Your task to perform on an android device: Set the phone to "Do not disturb". Image 0: 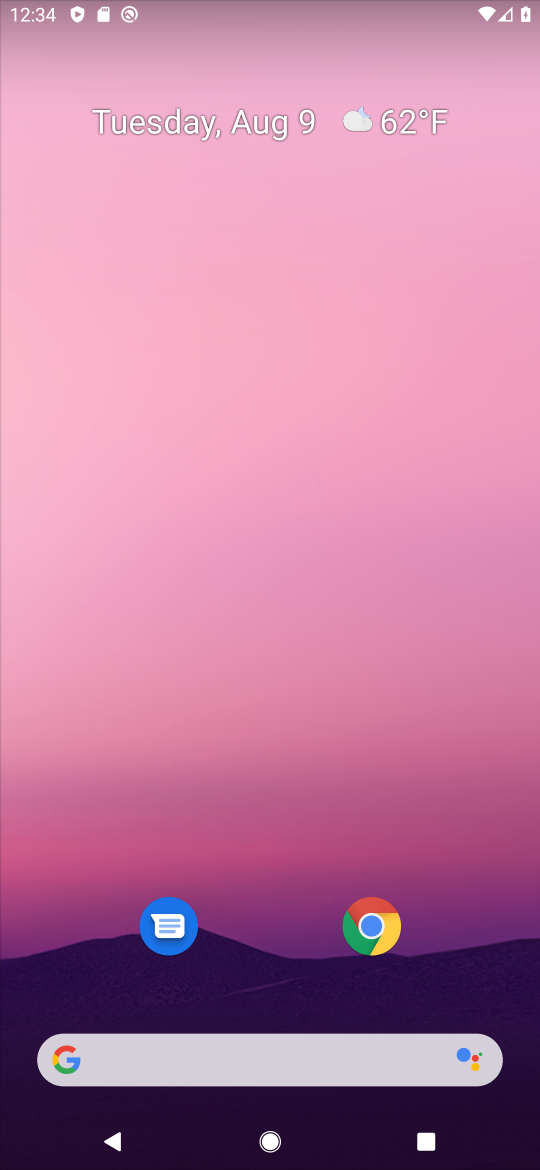
Step 0: drag from (268, 7) to (287, 783)
Your task to perform on an android device: Set the phone to "Do not disturb". Image 1: 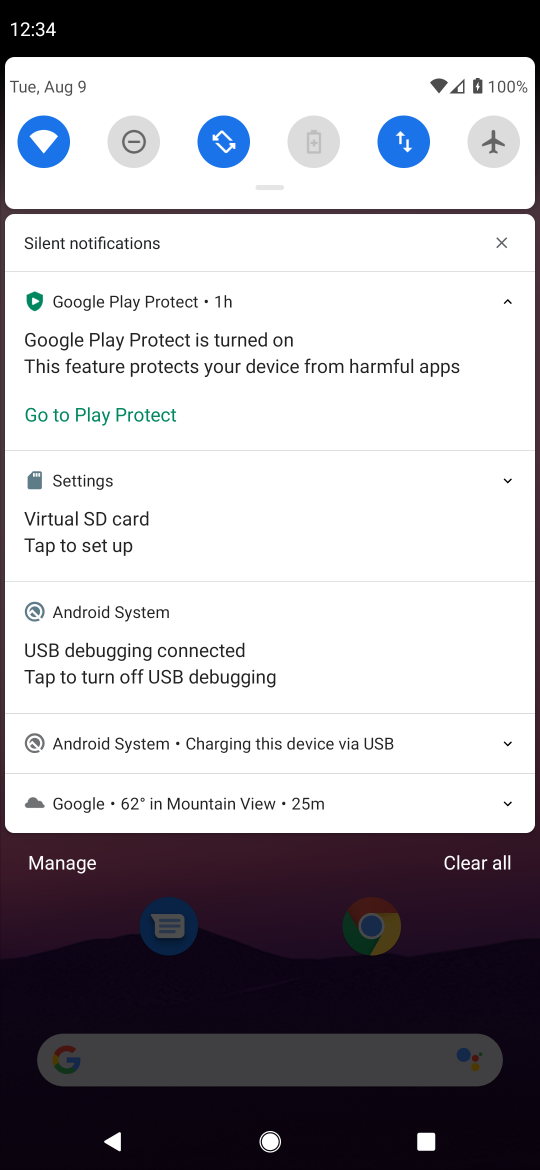
Step 1: click (140, 140)
Your task to perform on an android device: Set the phone to "Do not disturb". Image 2: 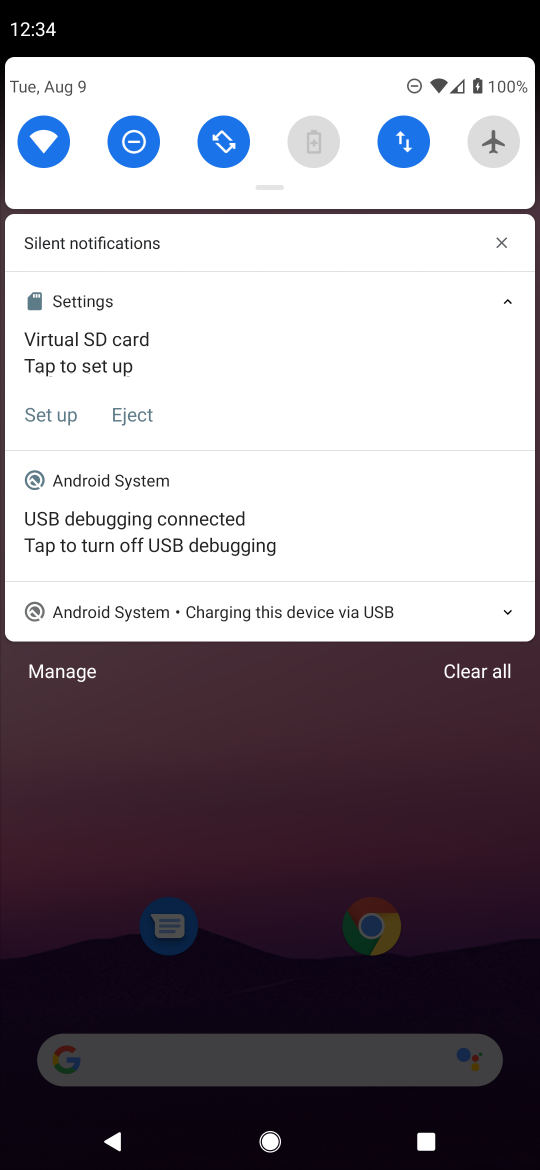
Step 2: task complete